Your task to perform on an android device: turn on sleep mode Image 0: 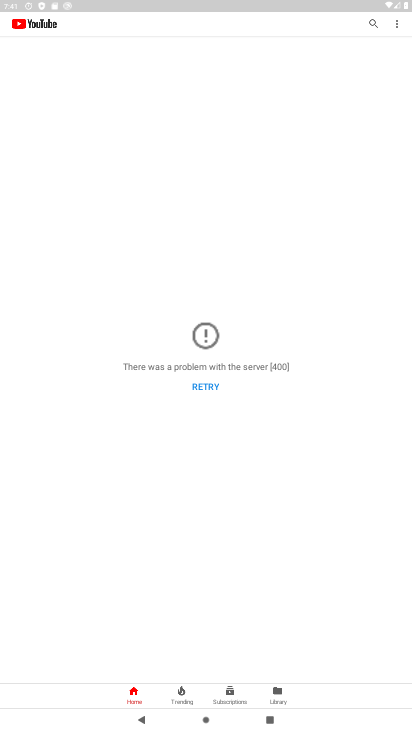
Step 0: press home button
Your task to perform on an android device: turn on sleep mode Image 1: 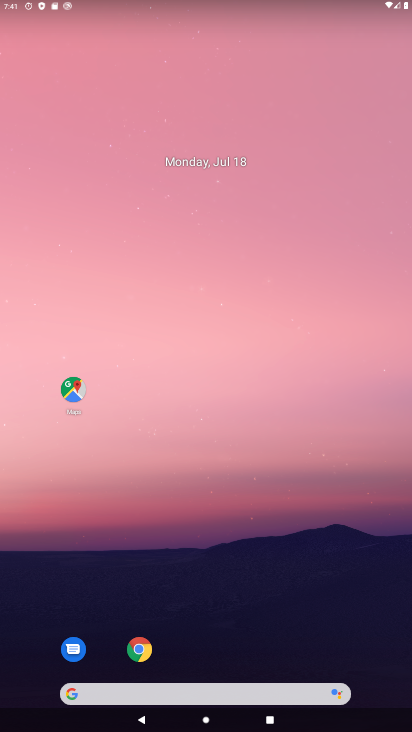
Step 1: drag from (286, 445) to (238, 148)
Your task to perform on an android device: turn on sleep mode Image 2: 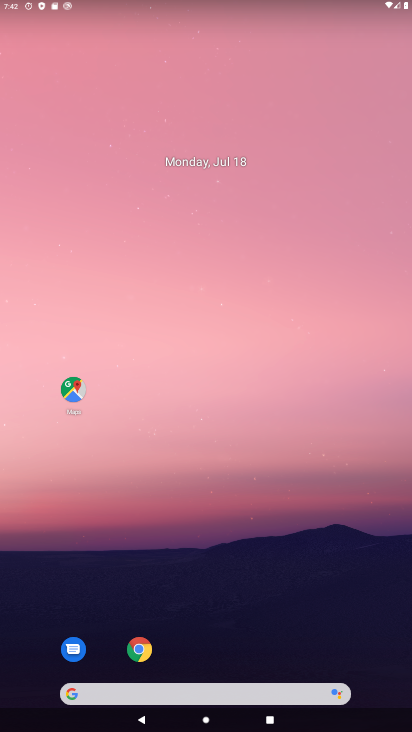
Step 2: drag from (330, 659) to (261, 90)
Your task to perform on an android device: turn on sleep mode Image 3: 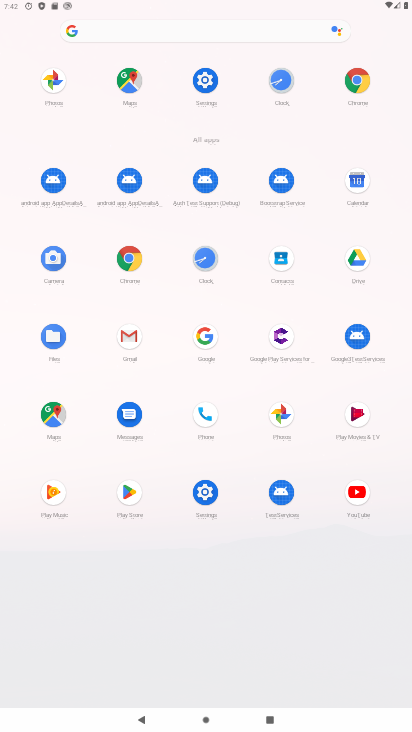
Step 3: click (205, 76)
Your task to perform on an android device: turn on sleep mode Image 4: 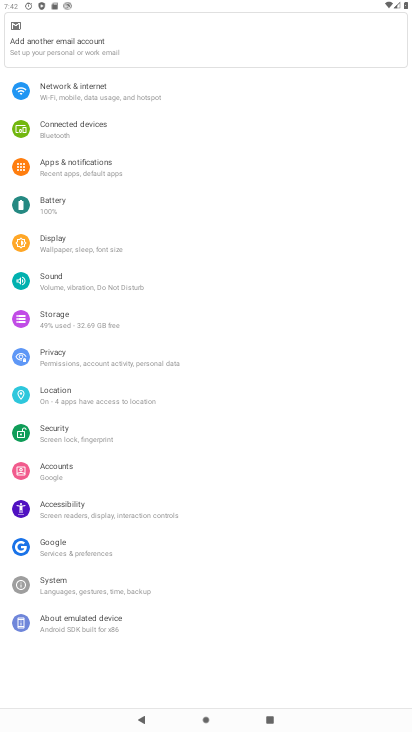
Step 4: click (66, 251)
Your task to perform on an android device: turn on sleep mode Image 5: 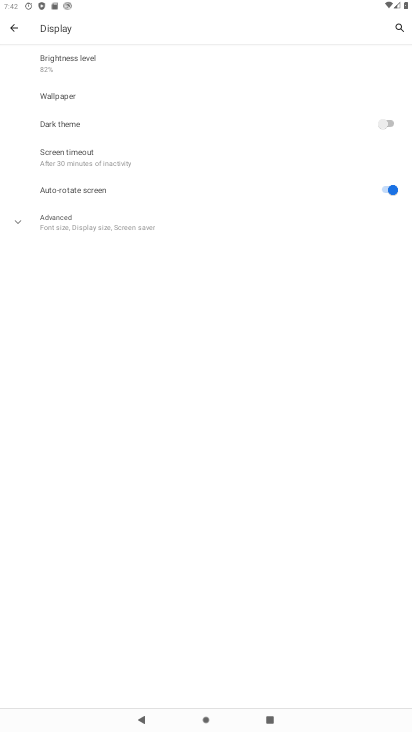
Step 5: click (109, 160)
Your task to perform on an android device: turn on sleep mode Image 6: 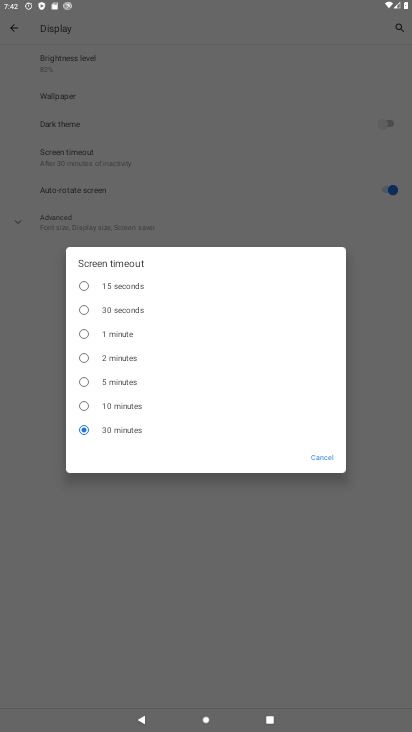
Step 6: task complete